Your task to perform on an android device: Open internet settings Image 0: 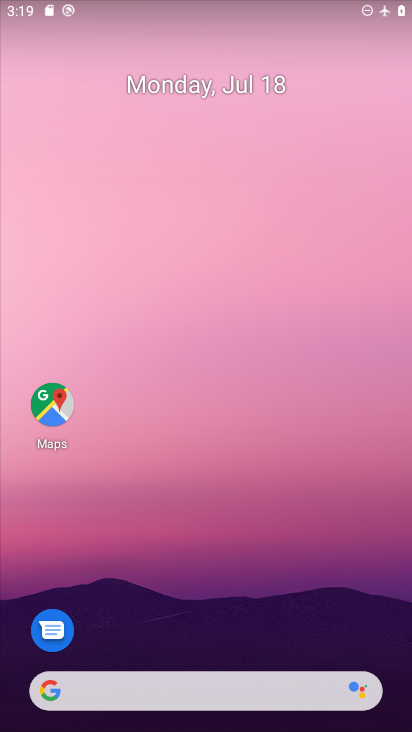
Step 0: drag from (242, 721) to (306, 1)
Your task to perform on an android device: Open internet settings Image 1: 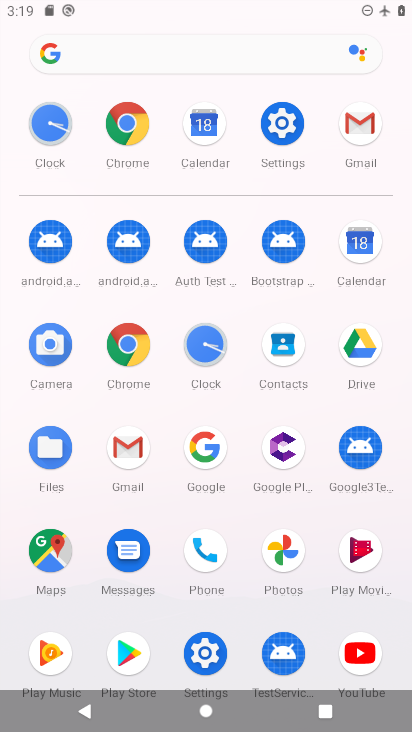
Step 1: click (280, 129)
Your task to perform on an android device: Open internet settings Image 2: 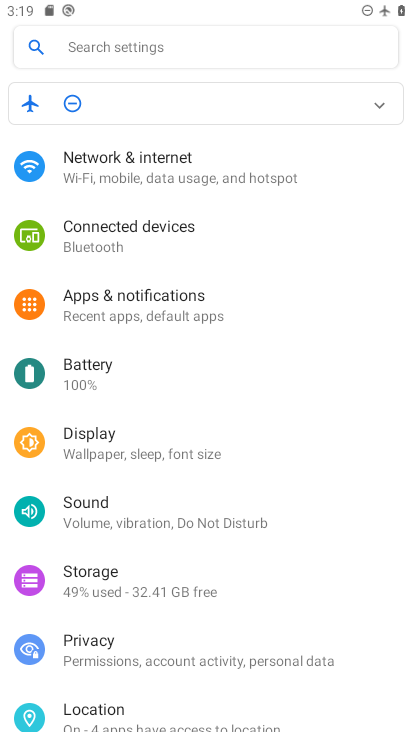
Step 2: click (196, 179)
Your task to perform on an android device: Open internet settings Image 3: 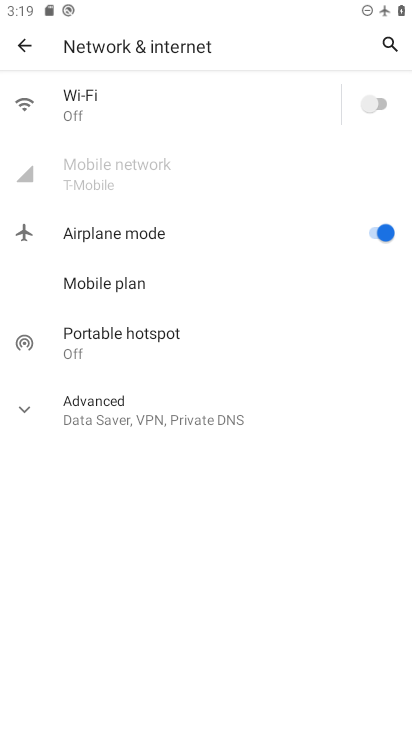
Step 3: task complete